Your task to perform on an android device: install app "Roku - Official Remote Control" Image 0: 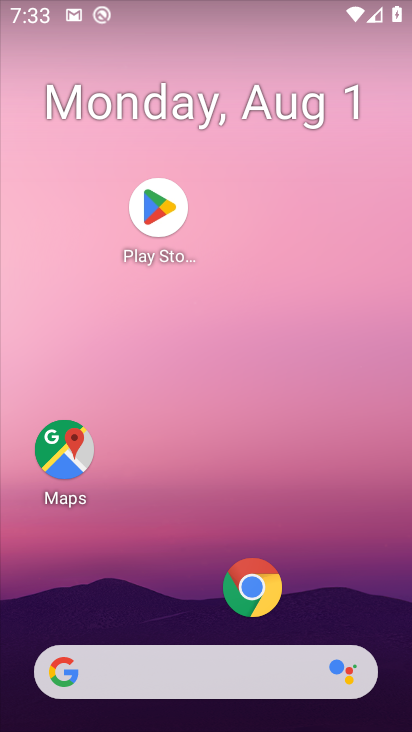
Step 0: click (149, 218)
Your task to perform on an android device: install app "Roku - Official Remote Control" Image 1: 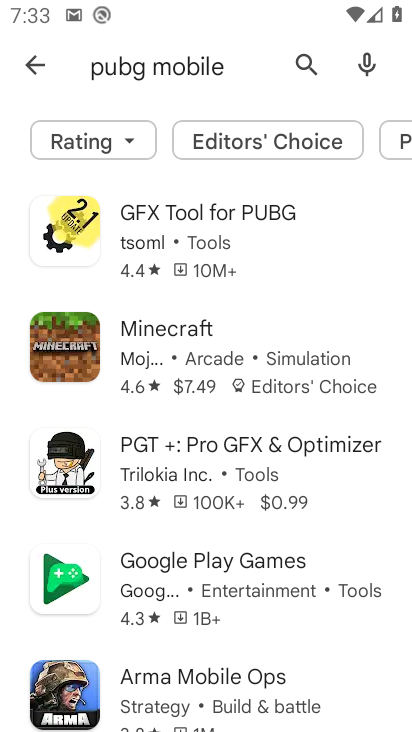
Step 1: click (296, 72)
Your task to perform on an android device: install app "Roku - Official Remote Control" Image 2: 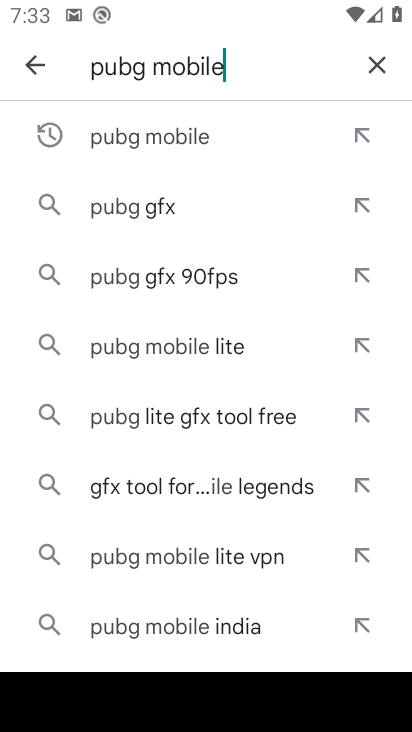
Step 2: click (360, 69)
Your task to perform on an android device: install app "Roku - Official Remote Control" Image 3: 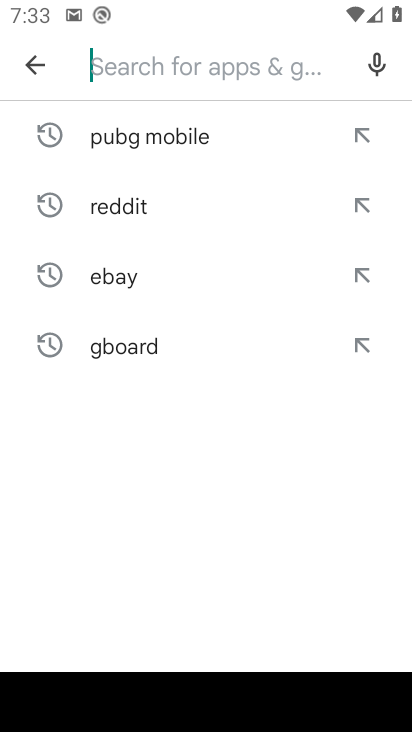
Step 3: type "roku"
Your task to perform on an android device: install app "Roku - Official Remote Control" Image 4: 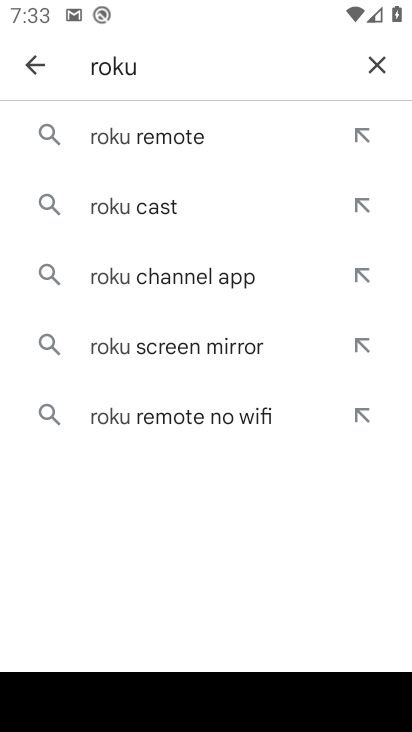
Step 4: click (214, 129)
Your task to perform on an android device: install app "Roku - Official Remote Control" Image 5: 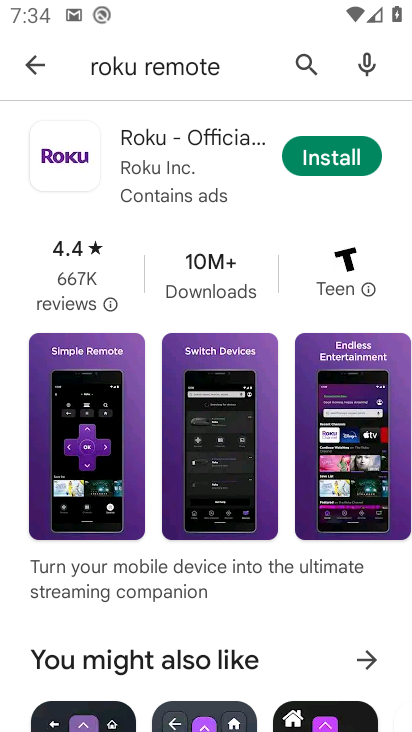
Step 5: click (334, 160)
Your task to perform on an android device: install app "Roku - Official Remote Control" Image 6: 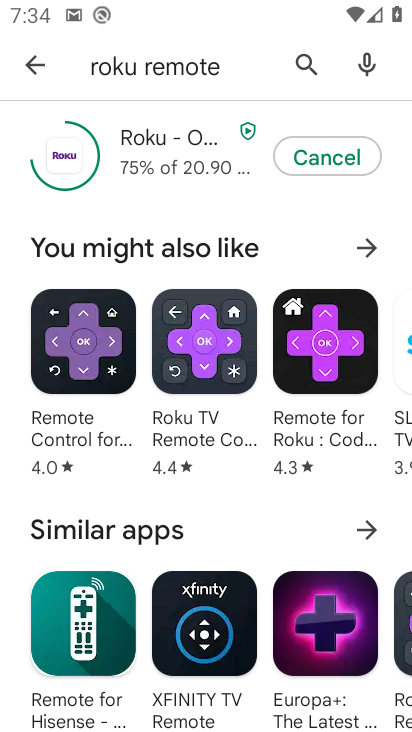
Step 6: task complete